Your task to perform on an android device: Search for duracell triple a on amazon.com, select the first entry, and add it to the cart. Image 0: 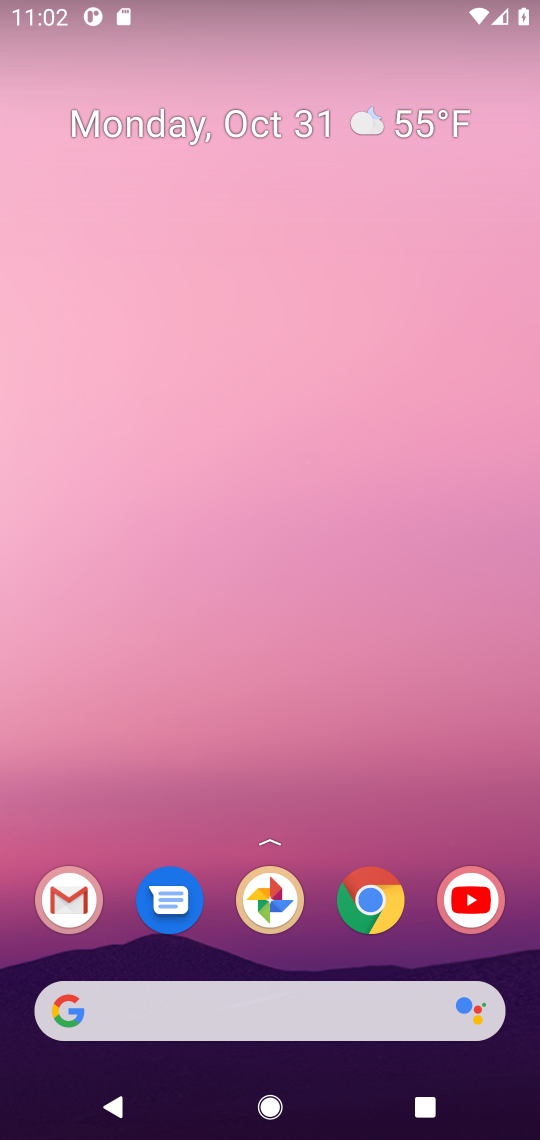
Step 0: click (361, 906)
Your task to perform on an android device: Search for duracell triple a on amazon.com, select the first entry, and add it to the cart. Image 1: 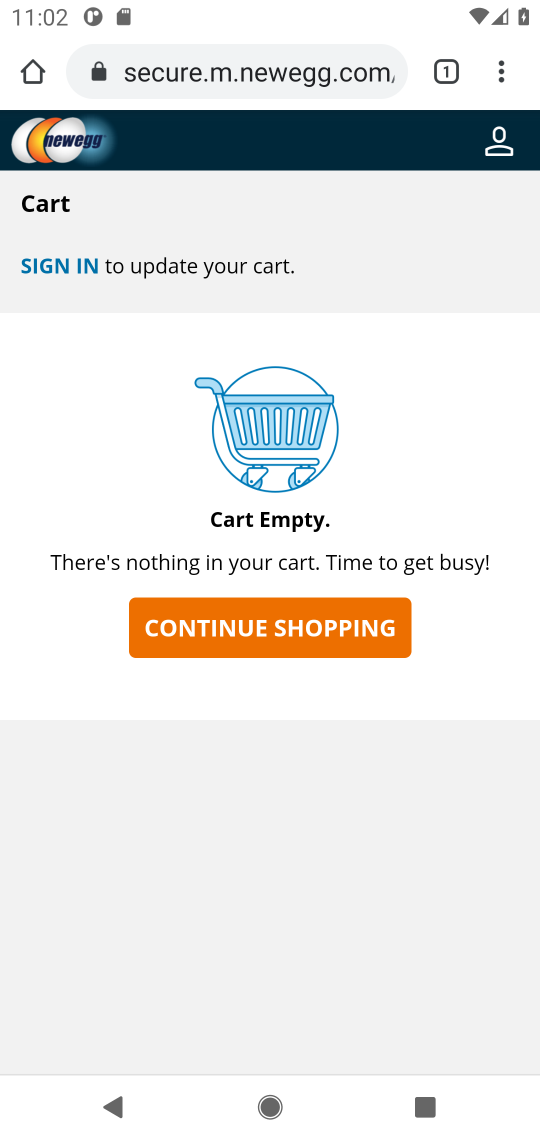
Step 1: click (300, 70)
Your task to perform on an android device: Search for duracell triple a on amazon.com, select the first entry, and add it to the cart. Image 2: 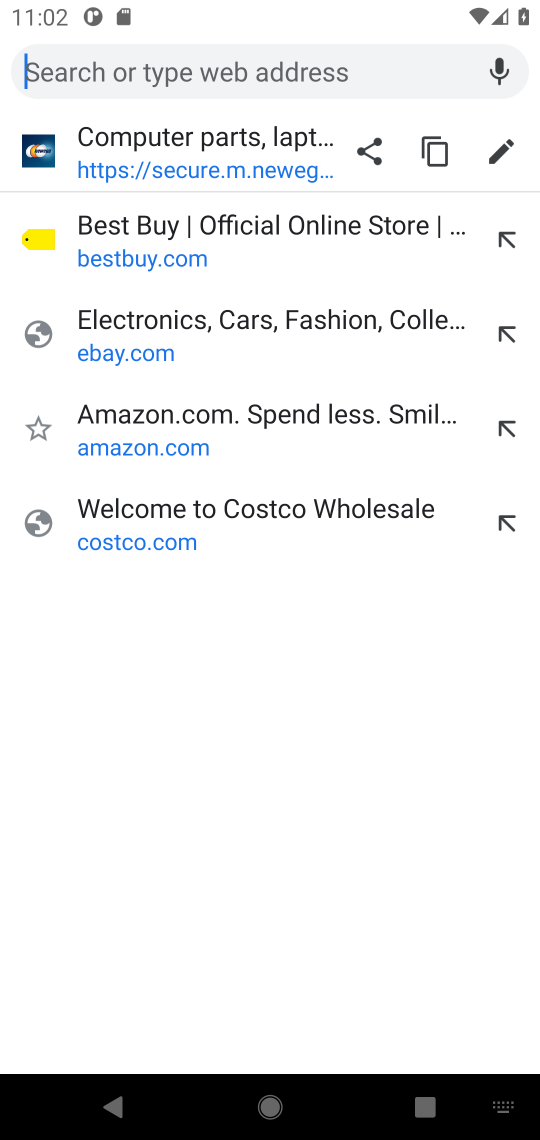
Step 2: click (142, 441)
Your task to perform on an android device: Search for duracell triple a on amazon.com, select the first entry, and add it to the cart. Image 3: 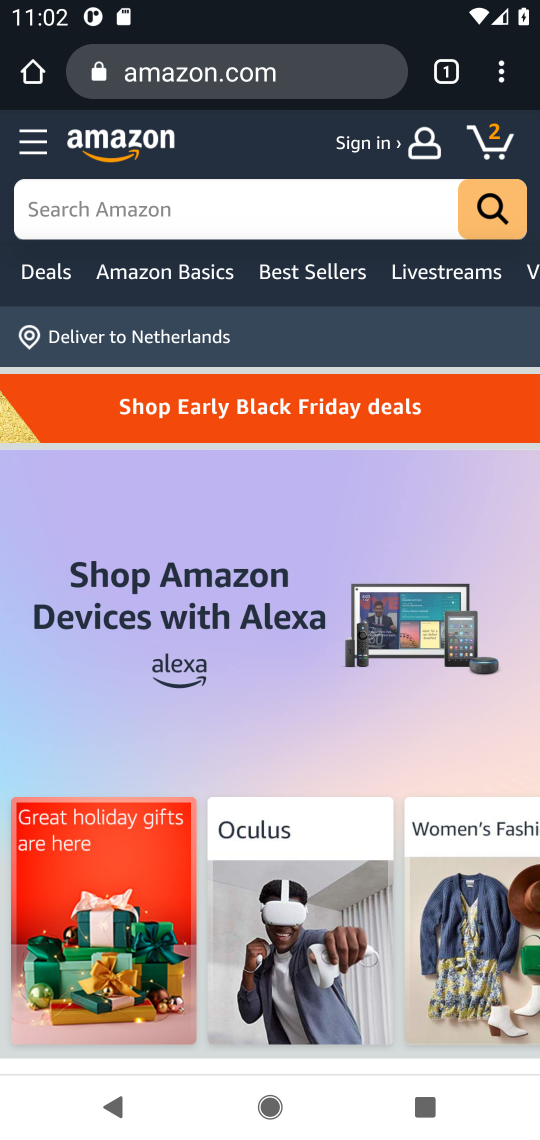
Step 3: click (256, 211)
Your task to perform on an android device: Search for duracell triple a on amazon.com, select the first entry, and add it to the cart. Image 4: 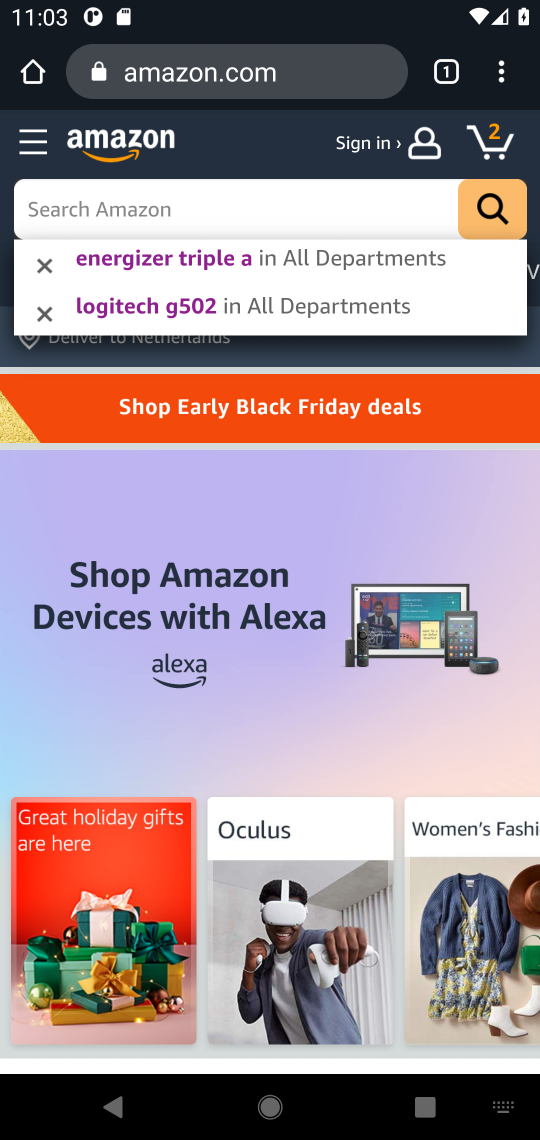
Step 4: type "duracell triple"
Your task to perform on an android device: Search for duracell triple a on amazon.com, select the first entry, and add it to the cart. Image 5: 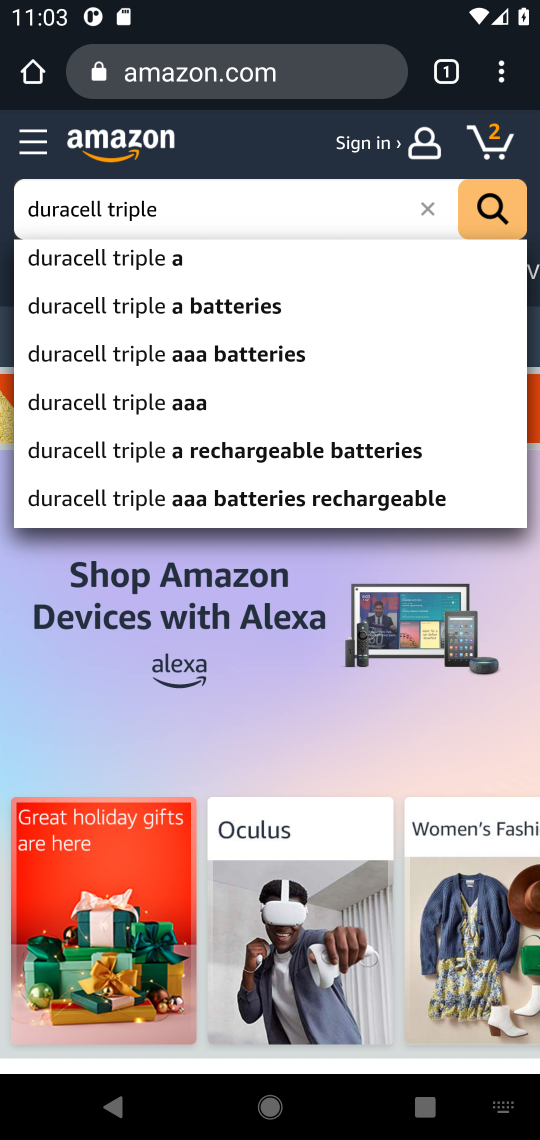
Step 5: click (152, 267)
Your task to perform on an android device: Search for duracell triple a on amazon.com, select the first entry, and add it to the cart. Image 6: 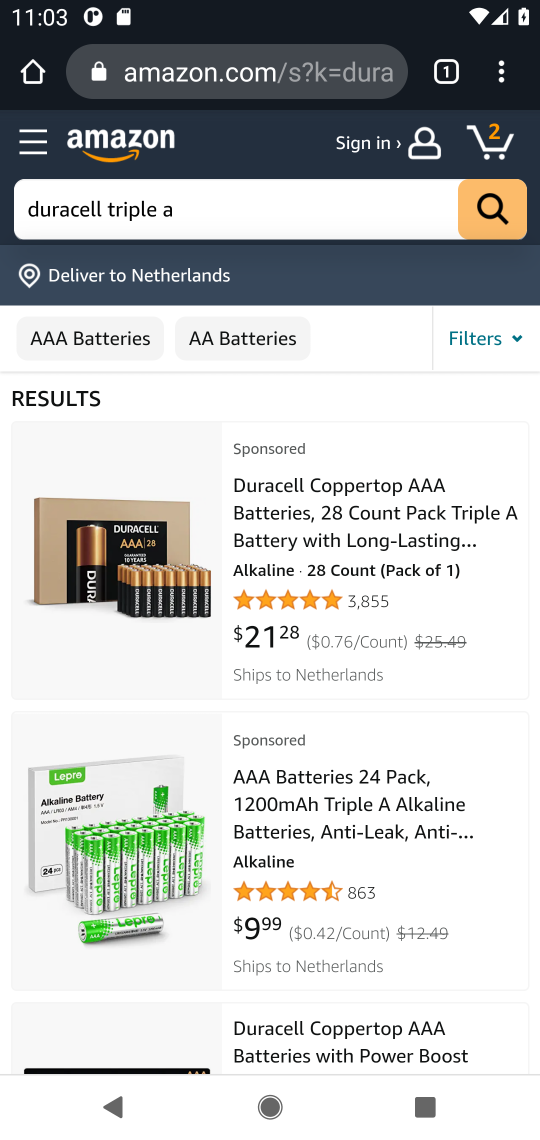
Step 6: click (201, 562)
Your task to perform on an android device: Search for duracell triple a on amazon.com, select the first entry, and add it to the cart. Image 7: 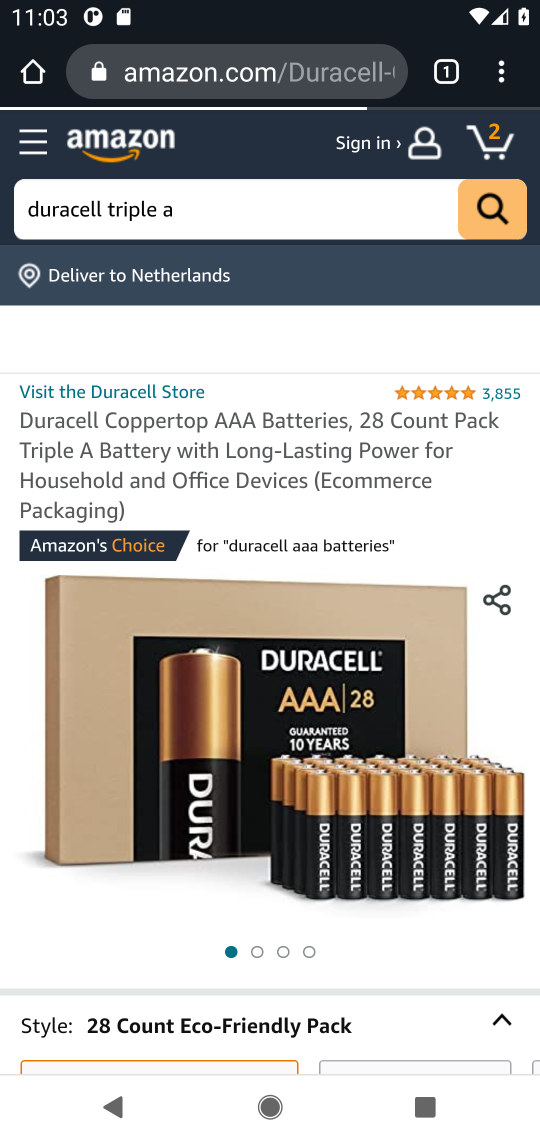
Step 7: drag from (223, 782) to (202, 265)
Your task to perform on an android device: Search for duracell triple a on amazon.com, select the first entry, and add it to the cart. Image 8: 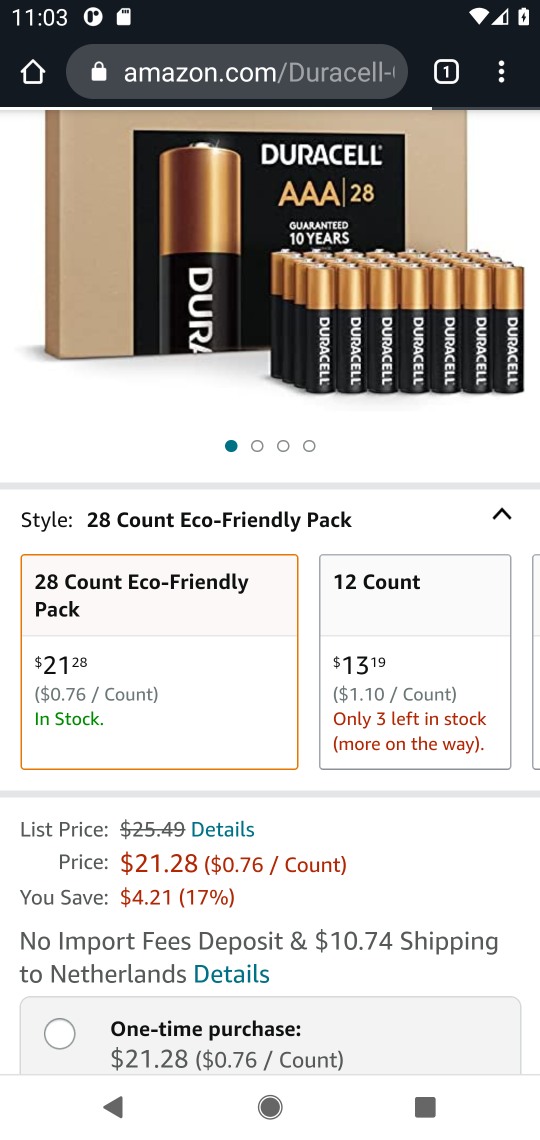
Step 8: drag from (255, 744) to (237, 326)
Your task to perform on an android device: Search for duracell triple a on amazon.com, select the first entry, and add it to the cart. Image 9: 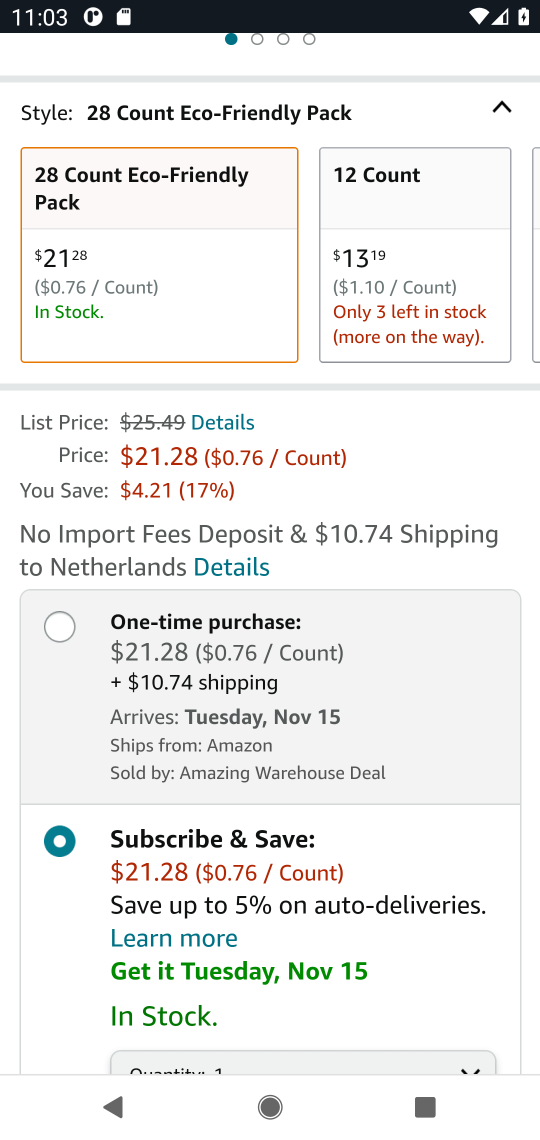
Step 9: click (73, 623)
Your task to perform on an android device: Search for duracell triple a on amazon.com, select the first entry, and add it to the cart. Image 10: 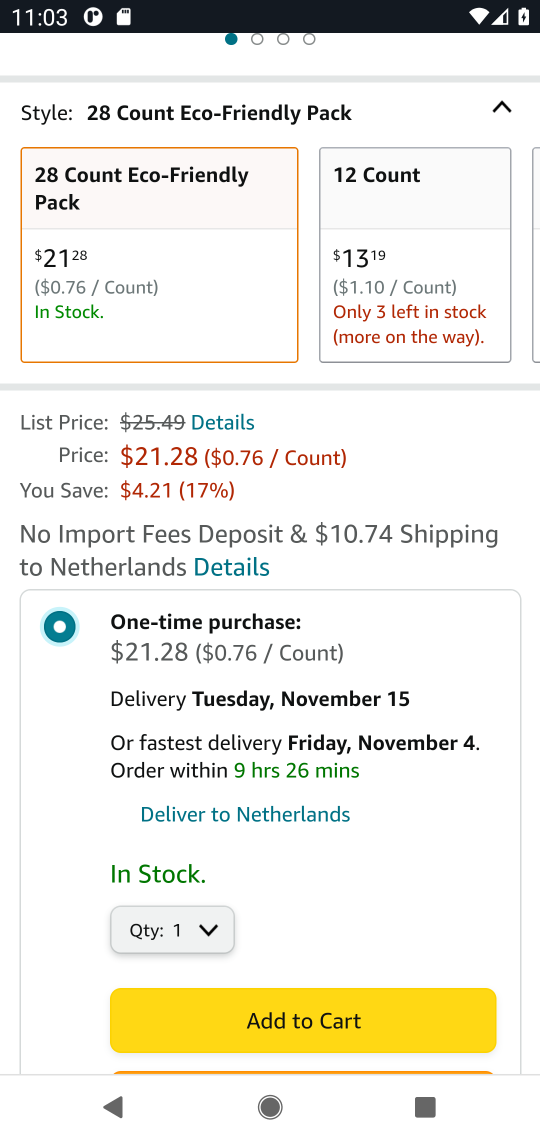
Step 10: drag from (279, 862) to (265, 507)
Your task to perform on an android device: Search for duracell triple a on amazon.com, select the first entry, and add it to the cart. Image 11: 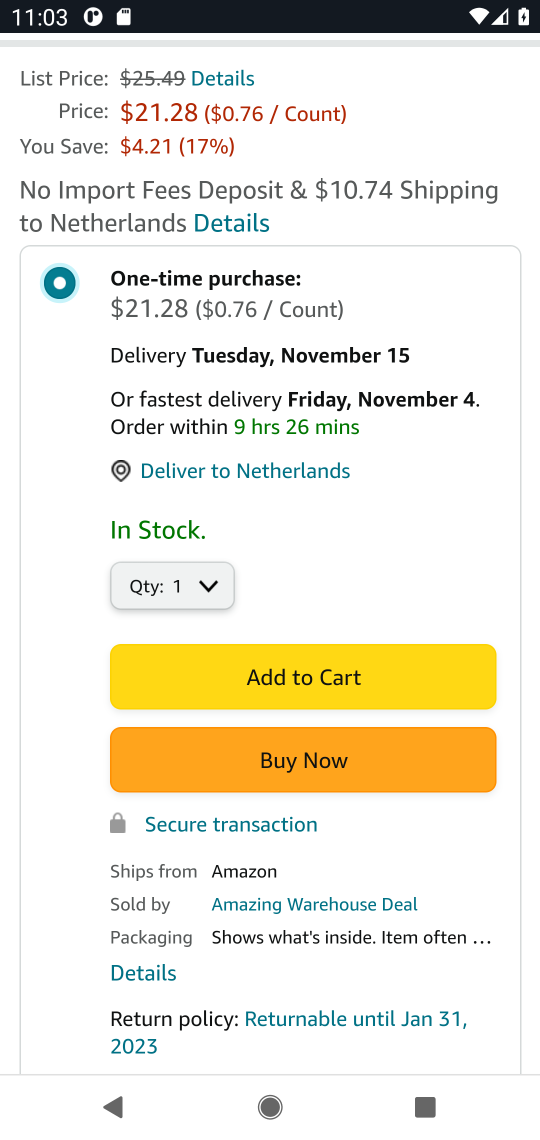
Step 11: click (287, 671)
Your task to perform on an android device: Search for duracell triple a on amazon.com, select the first entry, and add it to the cart. Image 12: 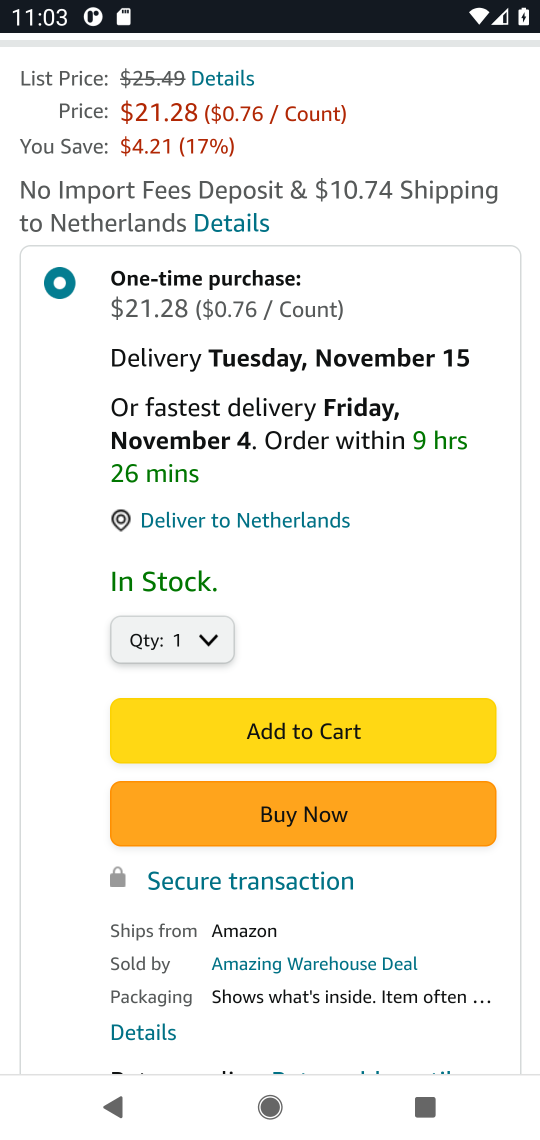
Step 12: click (311, 727)
Your task to perform on an android device: Search for duracell triple a on amazon.com, select the first entry, and add it to the cart. Image 13: 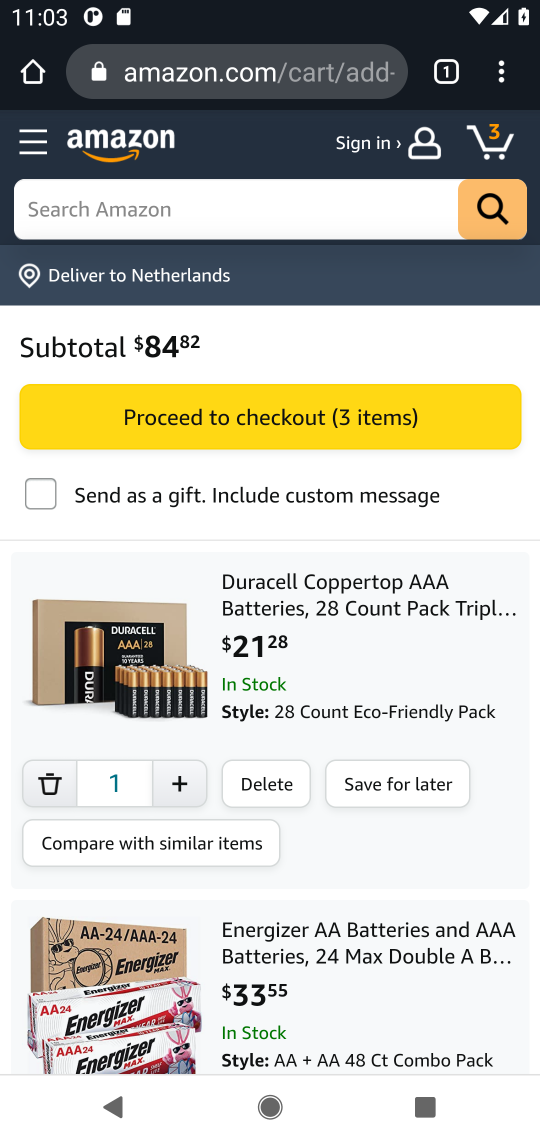
Step 13: task complete